Your task to perform on an android device: turn off data saver in the chrome app Image 0: 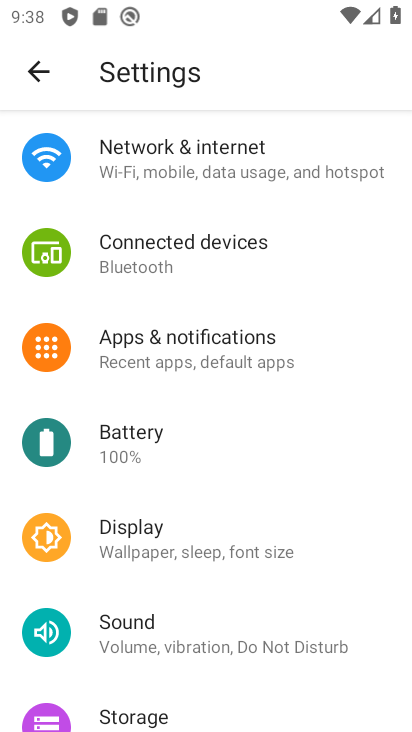
Step 0: click (228, 174)
Your task to perform on an android device: turn off data saver in the chrome app Image 1: 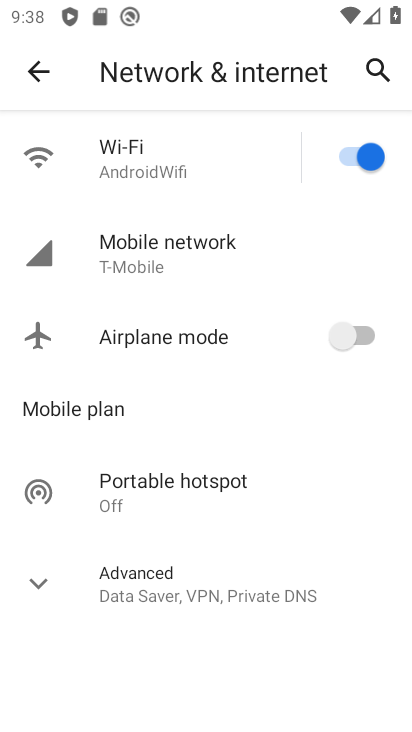
Step 1: press home button
Your task to perform on an android device: turn off data saver in the chrome app Image 2: 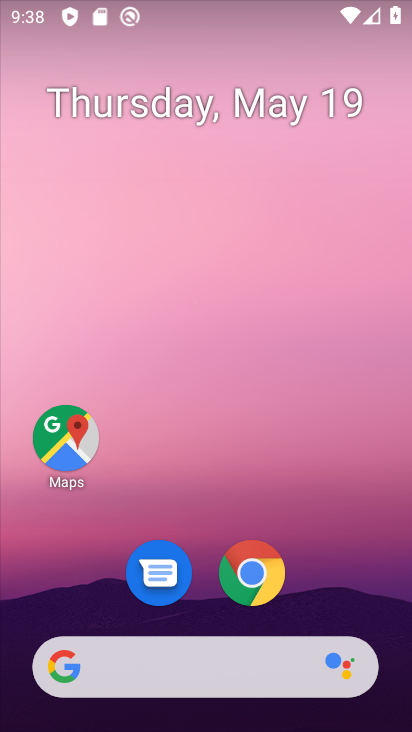
Step 2: click (242, 584)
Your task to perform on an android device: turn off data saver in the chrome app Image 3: 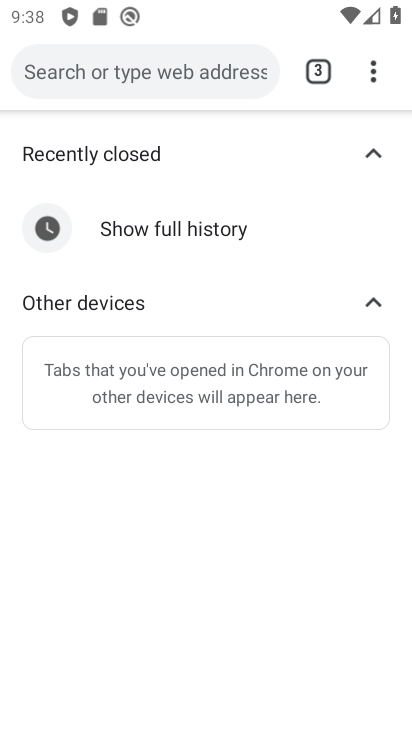
Step 3: click (369, 82)
Your task to perform on an android device: turn off data saver in the chrome app Image 4: 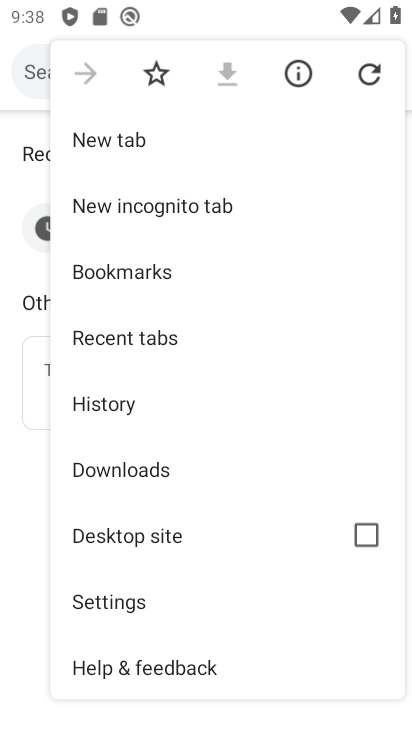
Step 4: click (178, 608)
Your task to perform on an android device: turn off data saver in the chrome app Image 5: 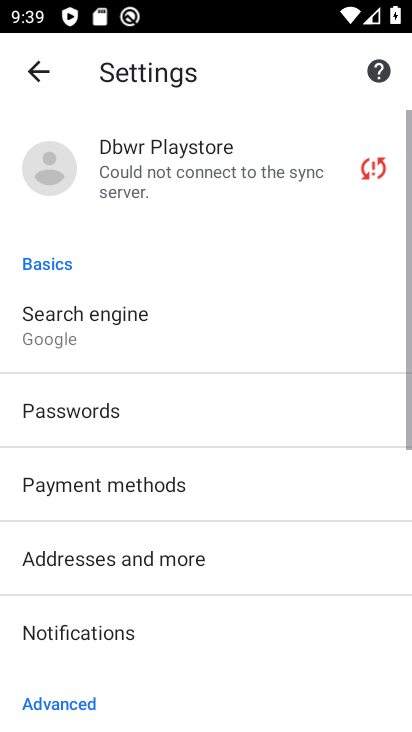
Step 5: drag from (178, 608) to (238, 257)
Your task to perform on an android device: turn off data saver in the chrome app Image 6: 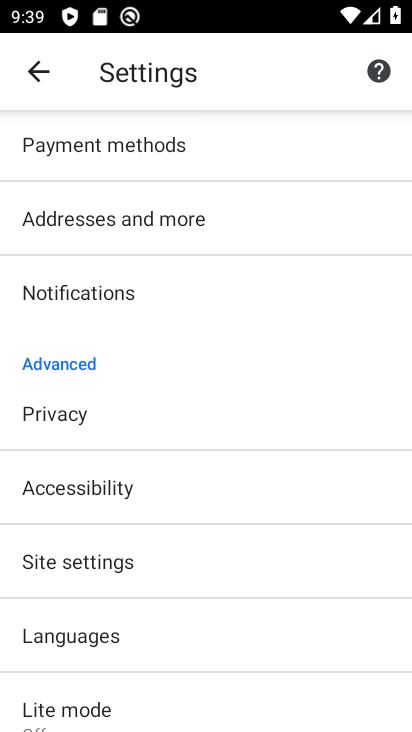
Step 6: drag from (196, 636) to (207, 417)
Your task to perform on an android device: turn off data saver in the chrome app Image 7: 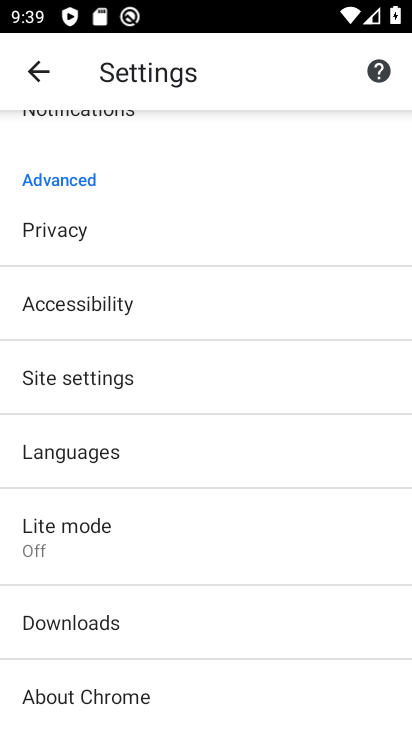
Step 7: click (70, 554)
Your task to perform on an android device: turn off data saver in the chrome app Image 8: 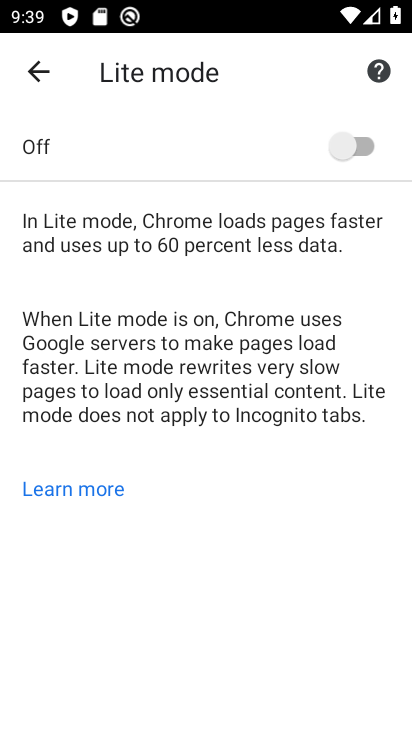
Step 8: task complete